Your task to perform on an android device: Search for vegetarian restaurants on Maps Image 0: 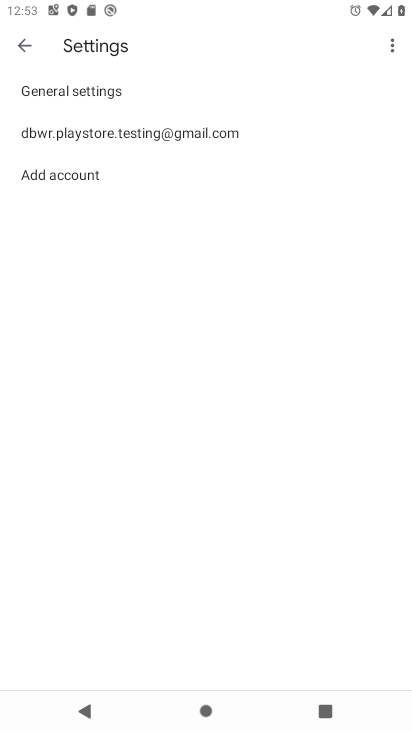
Step 0: press home button
Your task to perform on an android device: Search for vegetarian restaurants on Maps Image 1: 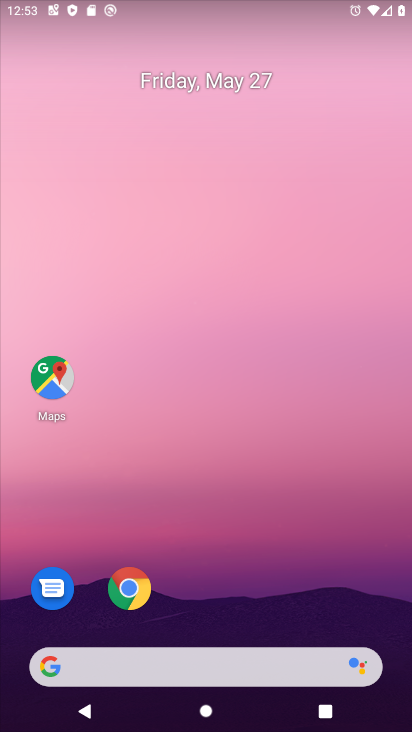
Step 1: click (54, 377)
Your task to perform on an android device: Search for vegetarian restaurants on Maps Image 2: 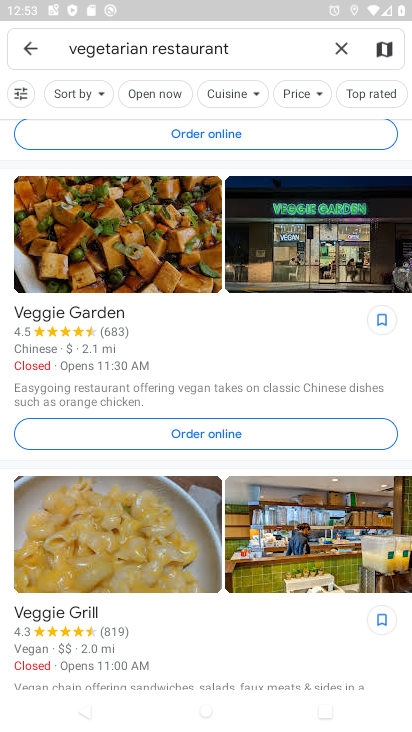
Step 2: task complete